Your task to perform on an android device: change keyboard looks Image 0: 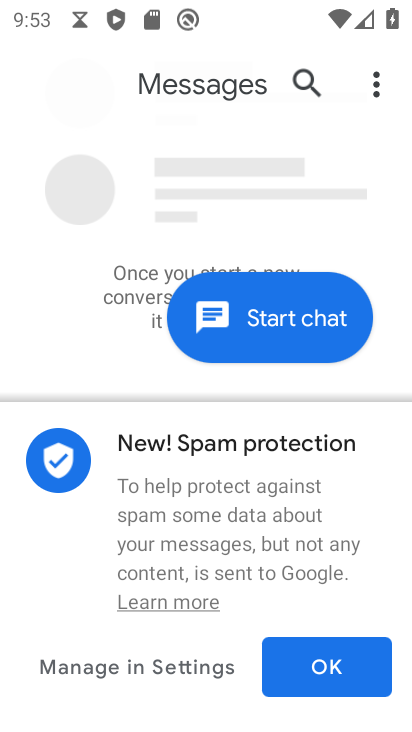
Step 0: press home button
Your task to perform on an android device: change keyboard looks Image 1: 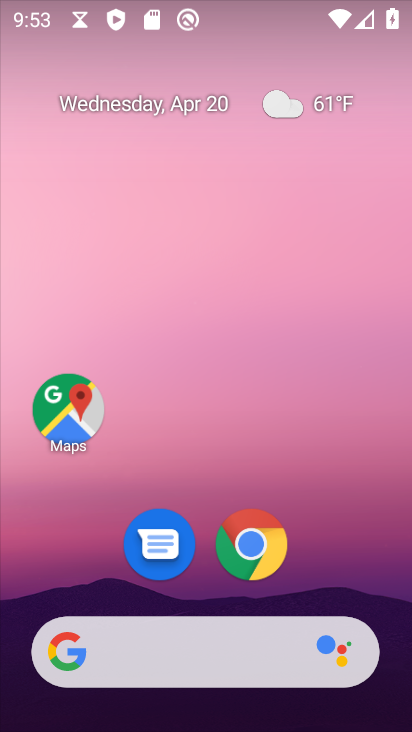
Step 1: drag from (223, 612) to (343, 37)
Your task to perform on an android device: change keyboard looks Image 2: 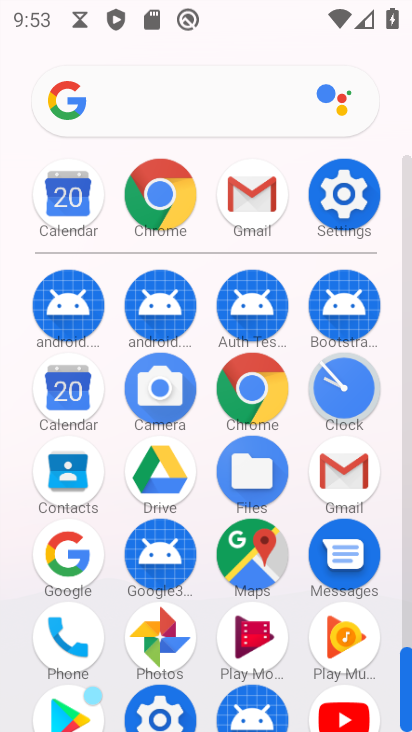
Step 2: click (336, 201)
Your task to perform on an android device: change keyboard looks Image 3: 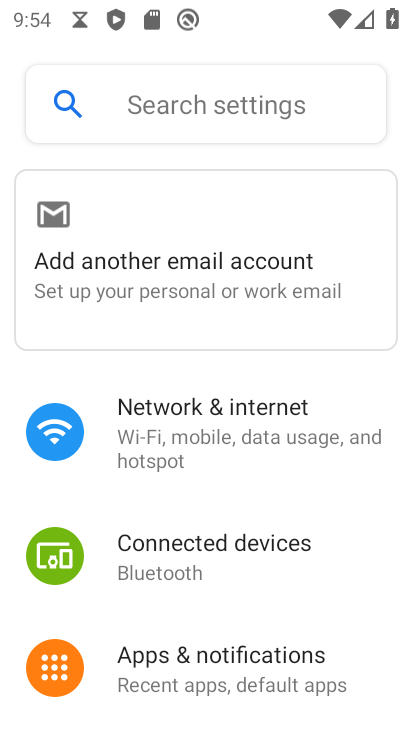
Step 3: drag from (178, 610) to (334, 201)
Your task to perform on an android device: change keyboard looks Image 4: 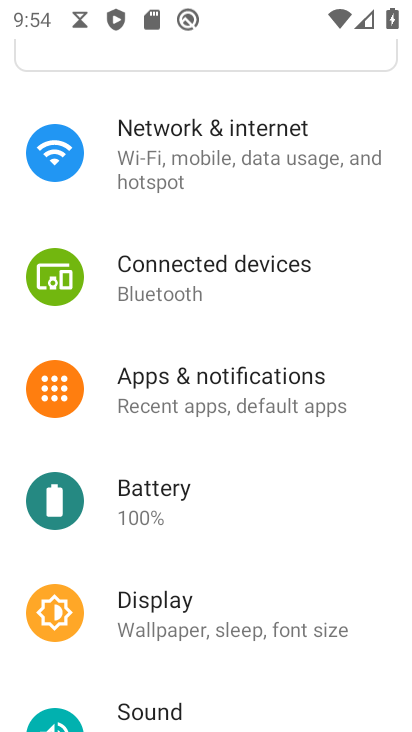
Step 4: drag from (184, 590) to (327, 50)
Your task to perform on an android device: change keyboard looks Image 5: 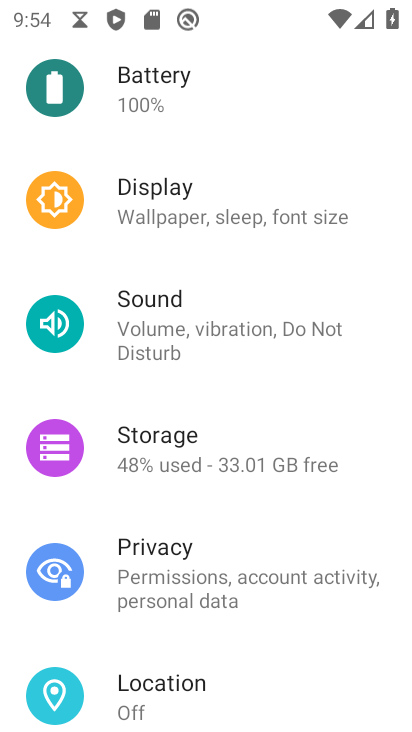
Step 5: drag from (225, 613) to (346, 37)
Your task to perform on an android device: change keyboard looks Image 6: 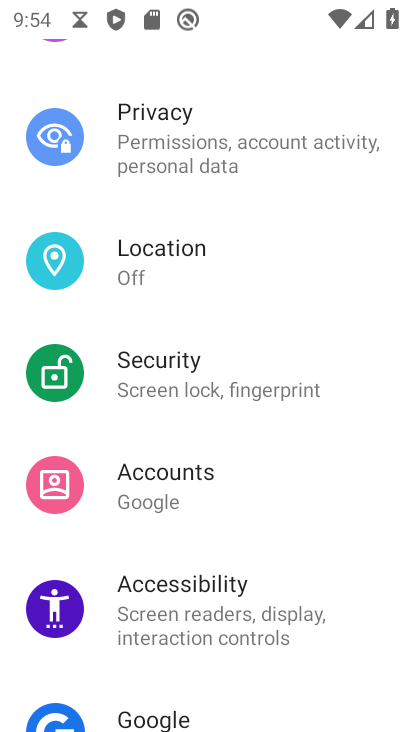
Step 6: drag from (242, 633) to (293, 292)
Your task to perform on an android device: change keyboard looks Image 7: 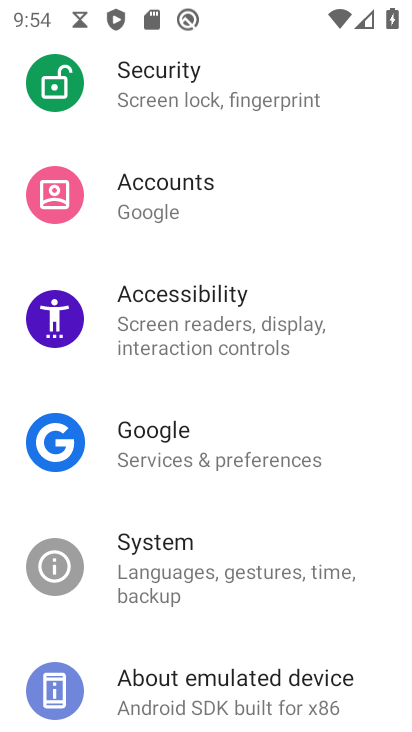
Step 7: click (209, 572)
Your task to perform on an android device: change keyboard looks Image 8: 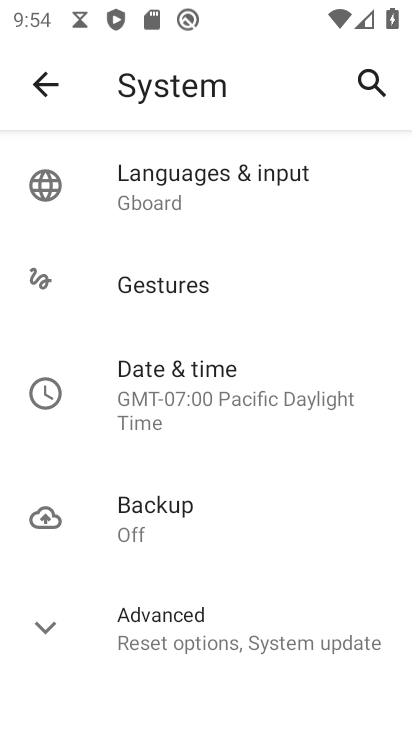
Step 8: click (176, 199)
Your task to perform on an android device: change keyboard looks Image 9: 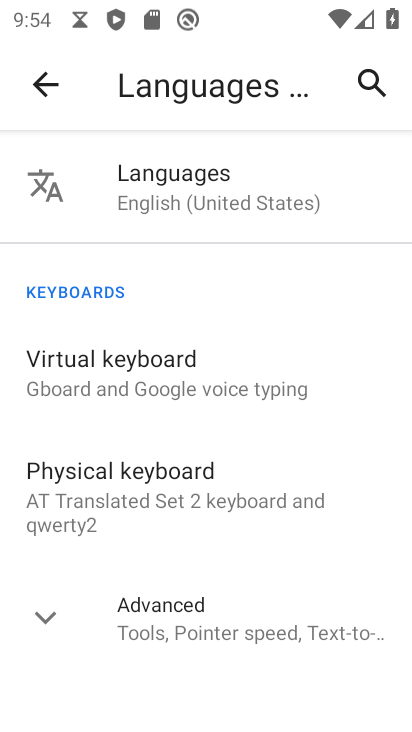
Step 9: click (169, 378)
Your task to perform on an android device: change keyboard looks Image 10: 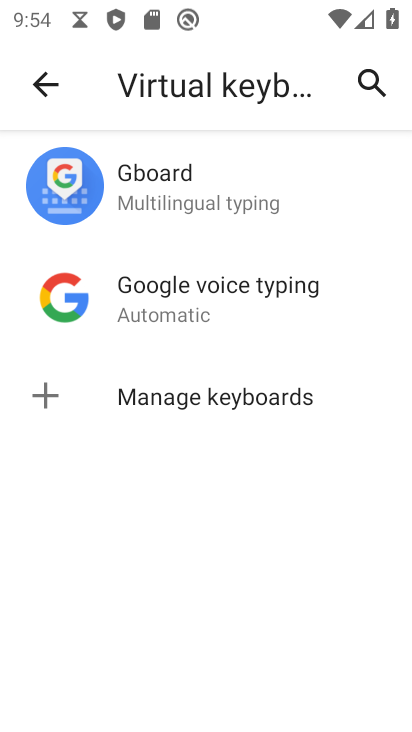
Step 10: click (179, 193)
Your task to perform on an android device: change keyboard looks Image 11: 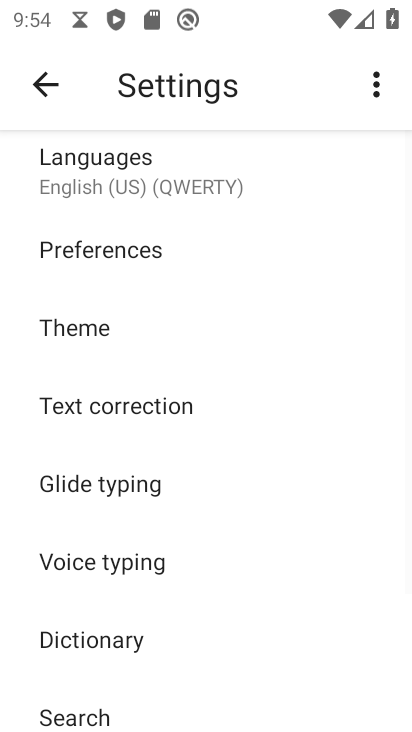
Step 11: click (65, 330)
Your task to perform on an android device: change keyboard looks Image 12: 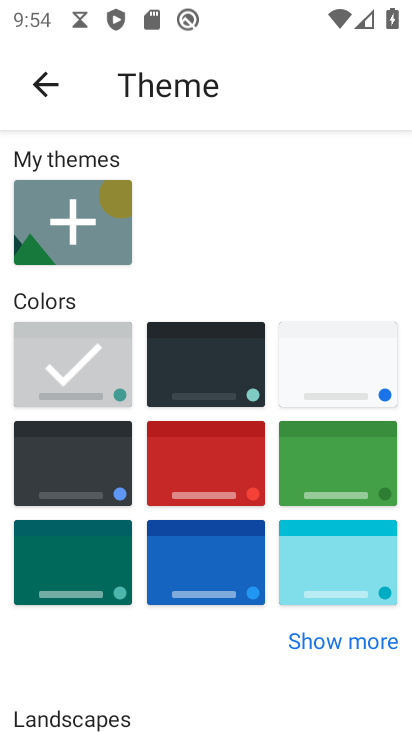
Step 12: click (339, 463)
Your task to perform on an android device: change keyboard looks Image 13: 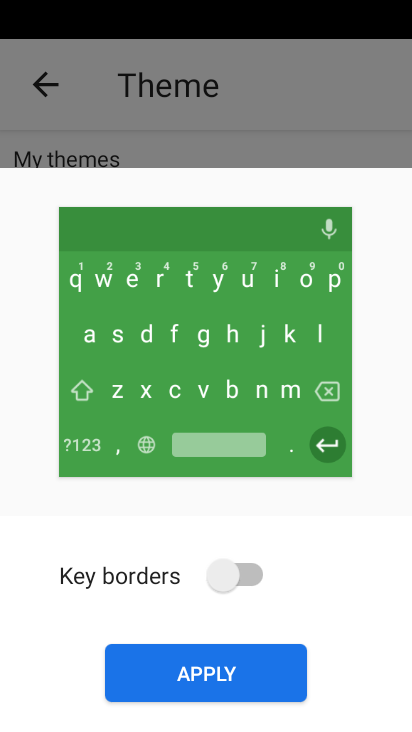
Step 13: click (181, 682)
Your task to perform on an android device: change keyboard looks Image 14: 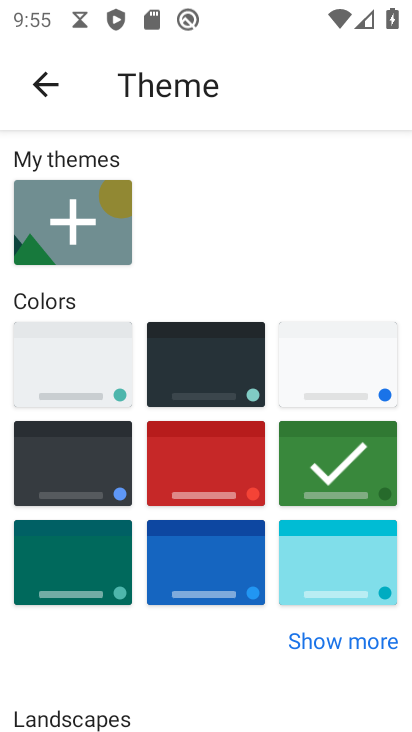
Step 14: task complete